Your task to perform on an android device: Open network settings Image 0: 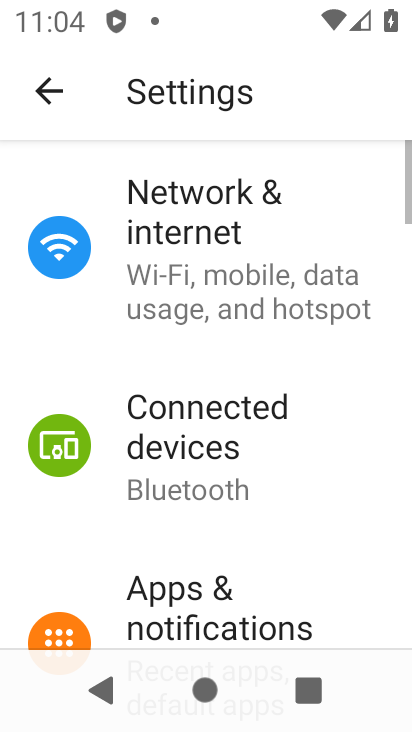
Step 0: press home button
Your task to perform on an android device: Open network settings Image 1: 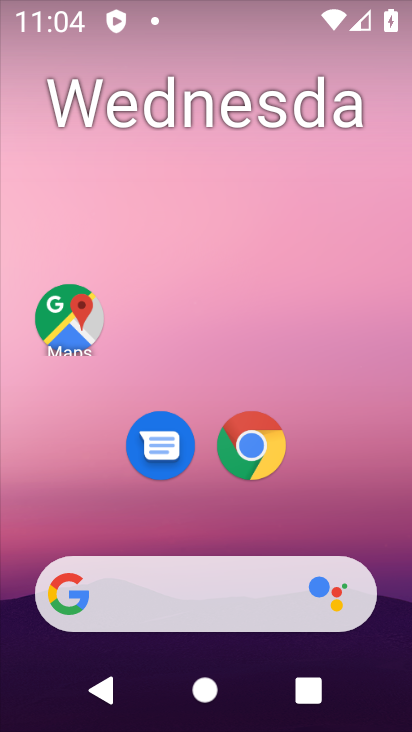
Step 1: drag from (324, 520) to (314, 222)
Your task to perform on an android device: Open network settings Image 2: 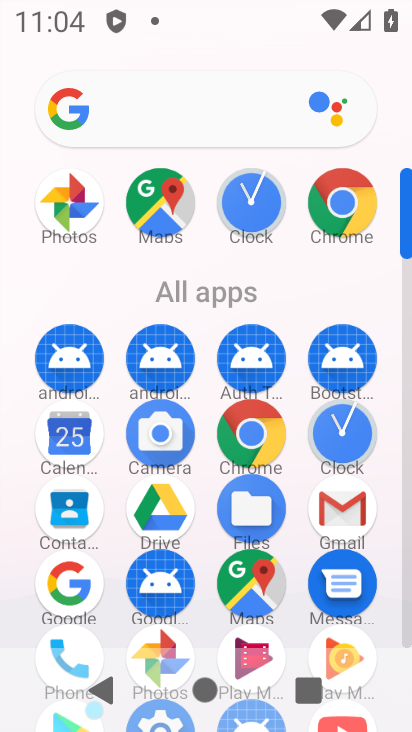
Step 2: drag from (159, 603) to (192, 426)
Your task to perform on an android device: Open network settings Image 3: 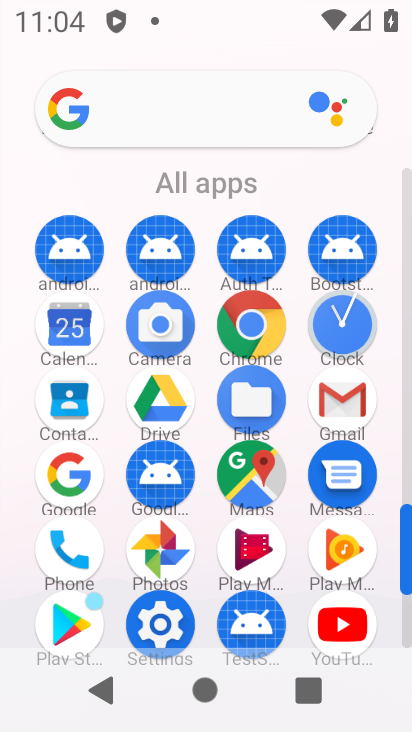
Step 3: click (165, 618)
Your task to perform on an android device: Open network settings Image 4: 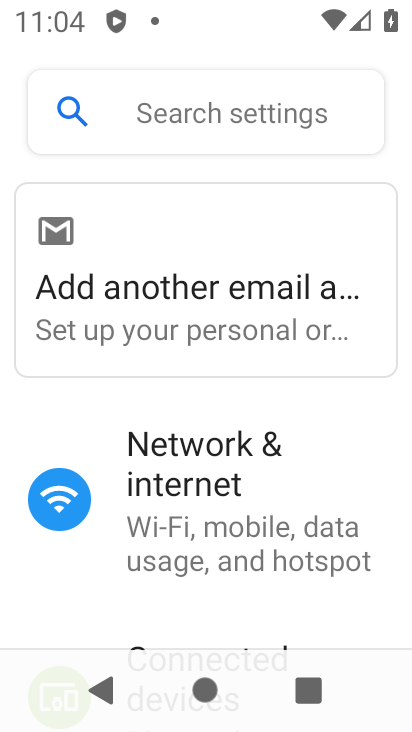
Step 4: click (187, 534)
Your task to perform on an android device: Open network settings Image 5: 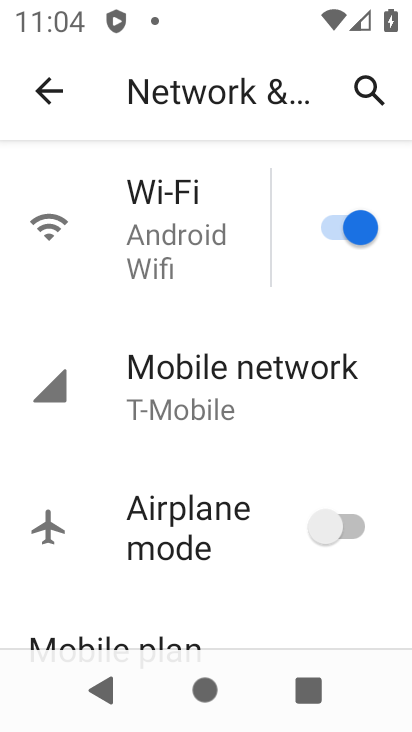
Step 5: task complete